Your task to perform on an android device: open device folders in google photos Image 0: 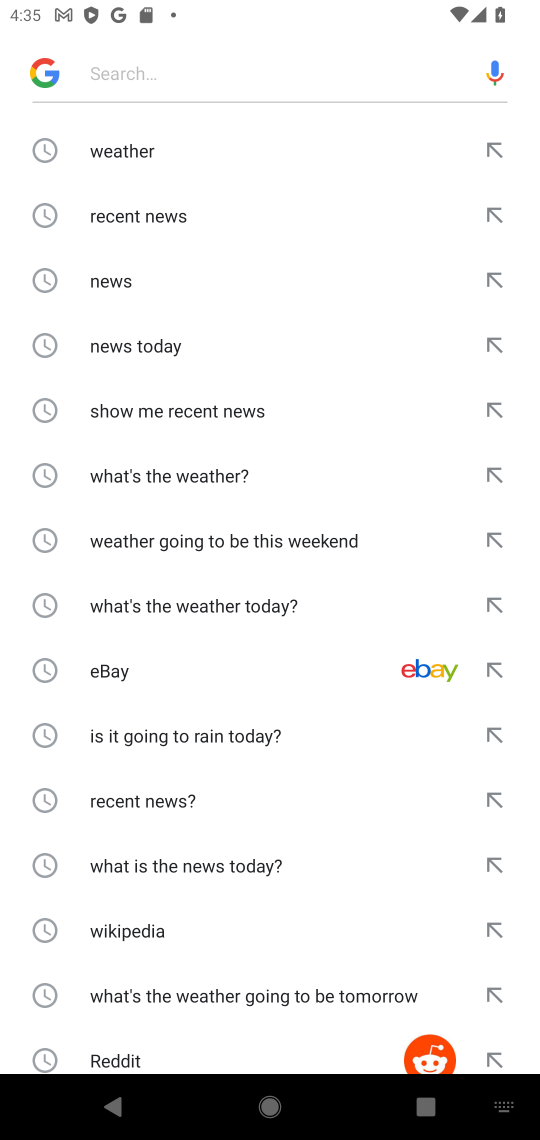
Step 0: press back button
Your task to perform on an android device: open device folders in google photos Image 1: 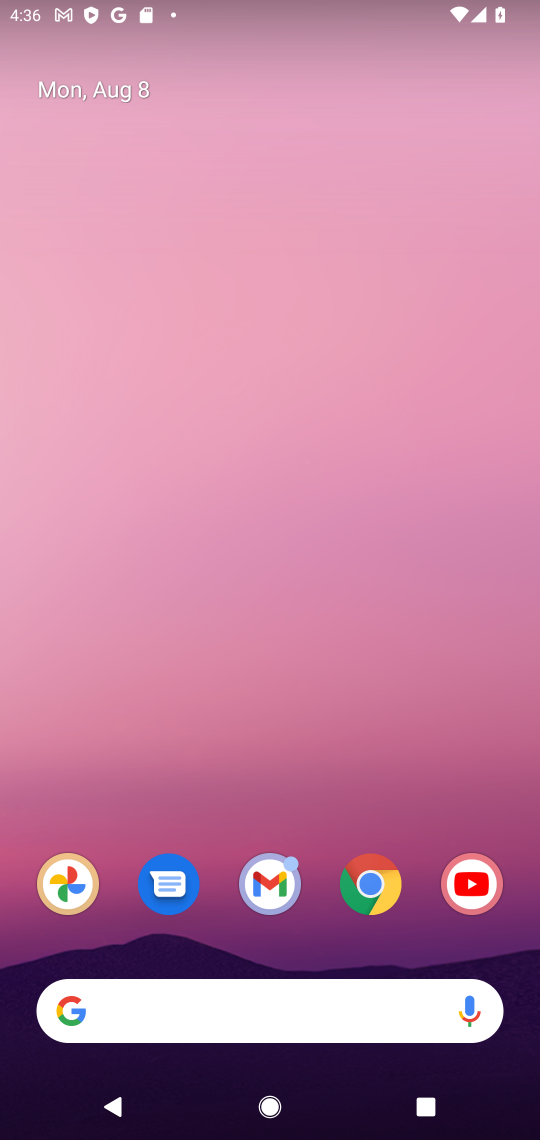
Step 1: drag from (264, 994) to (234, 55)
Your task to perform on an android device: open device folders in google photos Image 2: 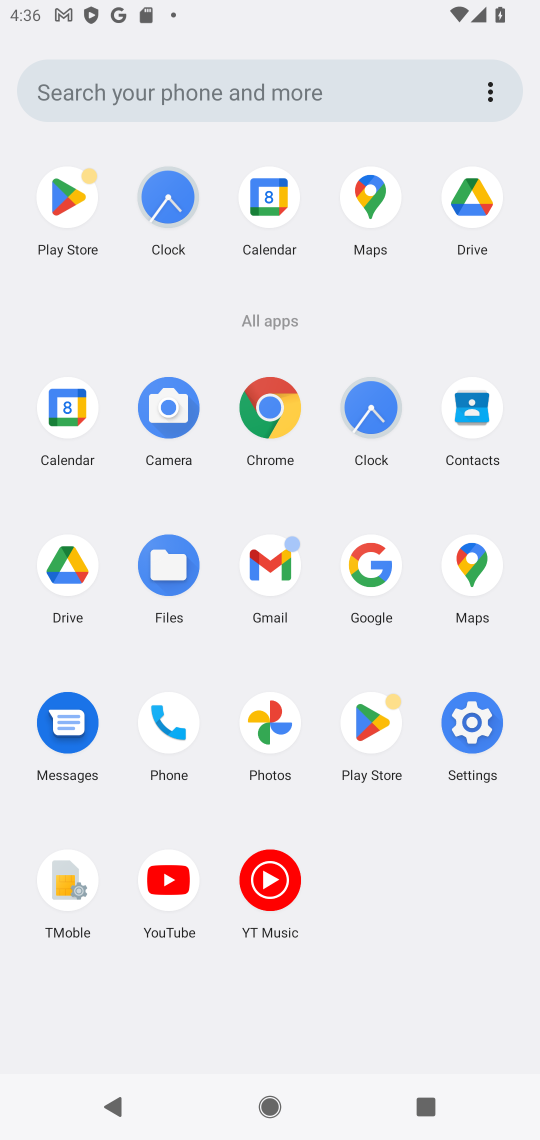
Step 2: click (264, 722)
Your task to perform on an android device: open device folders in google photos Image 3: 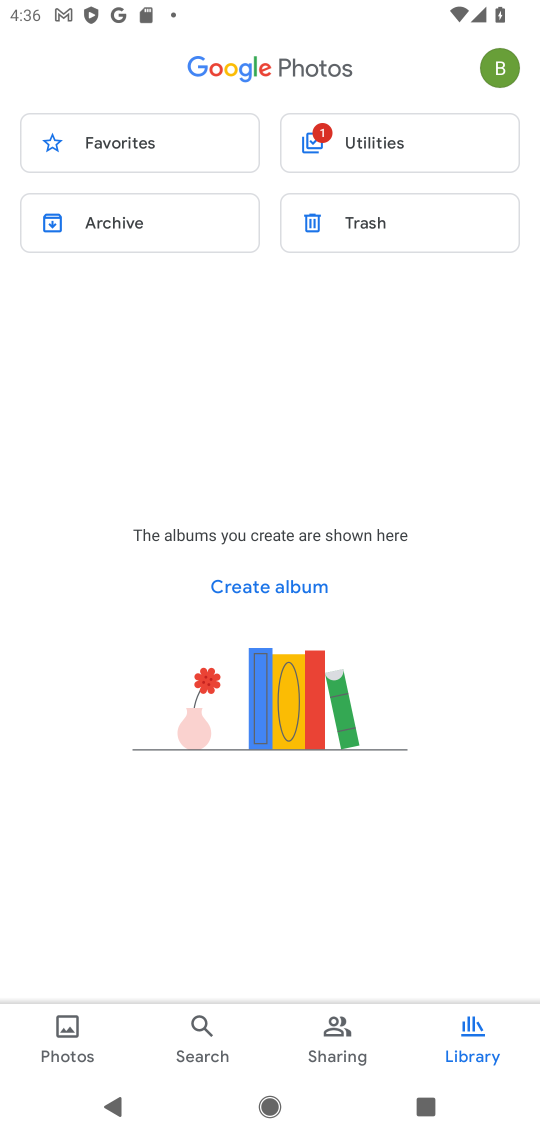
Step 3: click (497, 1039)
Your task to perform on an android device: open device folders in google photos Image 4: 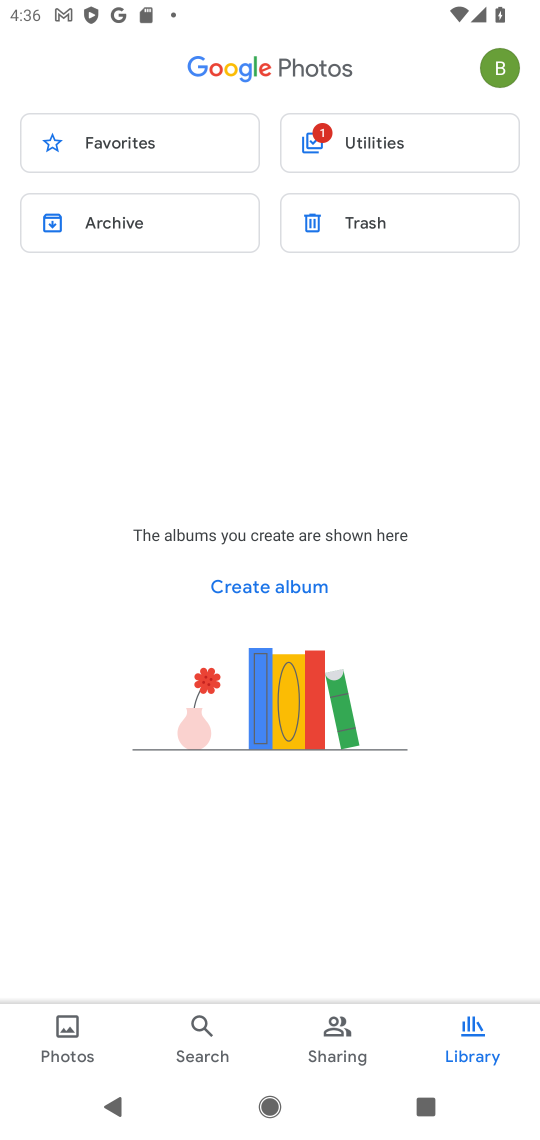
Step 4: task complete